Your task to perform on an android device: install app "Gmail" Image 0: 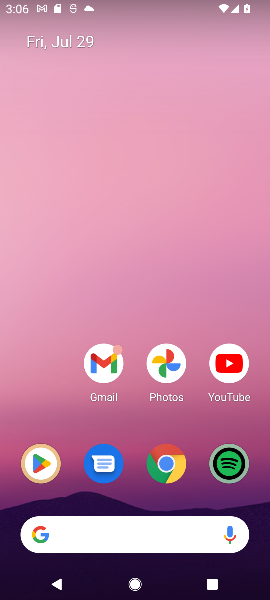
Step 0: drag from (106, 537) to (113, 143)
Your task to perform on an android device: install app "Gmail" Image 1: 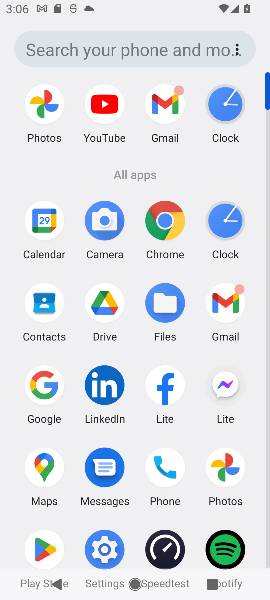
Step 1: drag from (70, 505) to (66, 325)
Your task to perform on an android device: install app "Gmail" Image 2: 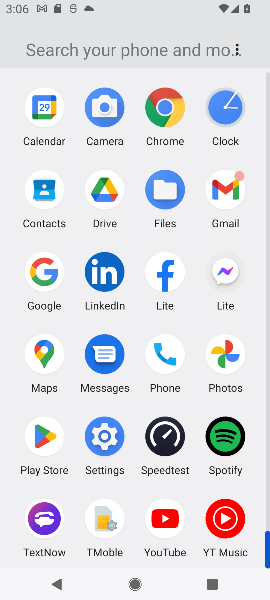
Step 2: click (45, 436)
Your task to perform on an android device: install app "Gmail" Image 3: 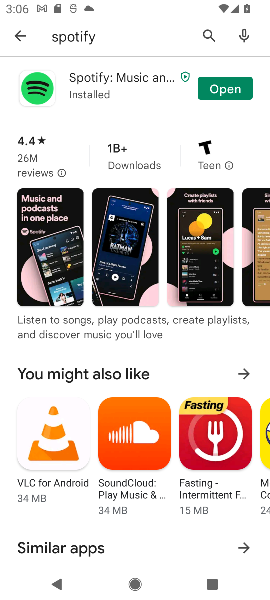
Step 3: click (210, 36)
Your task to perform on an android device: install app "Gmail" Image 4: 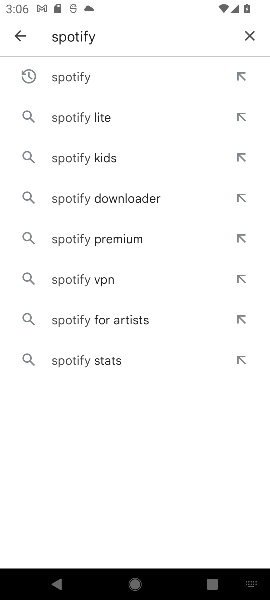
Step 4: click (251, 34)
Your task to perform on an android device: install app "Gmail" Image 5: 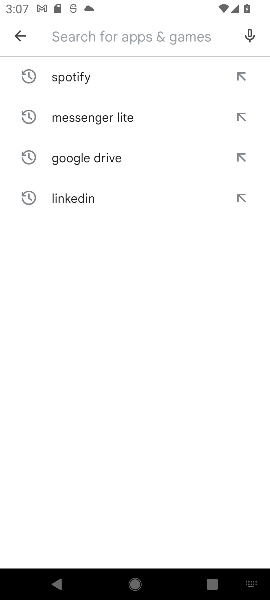
Step 5: type "Gmail"
Your task to perform on an android device: install app "Gmail" Image 6: 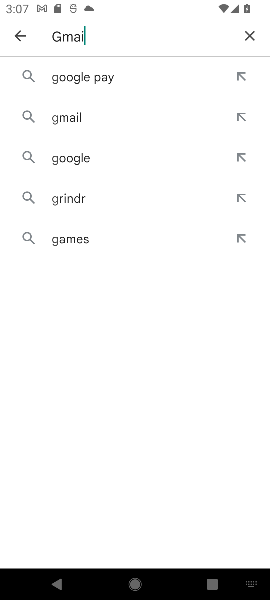
Step 6: type ""
Your task to perform on an android device: install app "Gmail" Image 7: 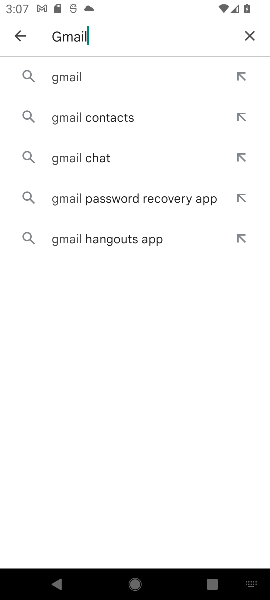
Step 7: click (81, 79)
Your task to perform on an android device: install app "Gmail" Image 8: 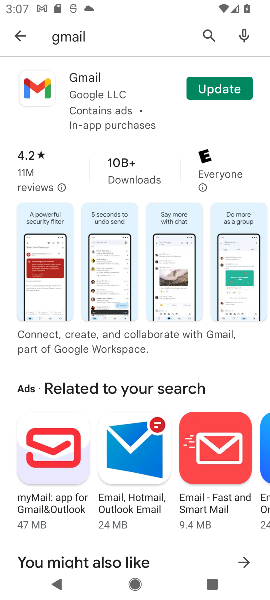
Step 8: click (217, 88)
Your task to perform on an android device: install app "Gmail" Image 9: 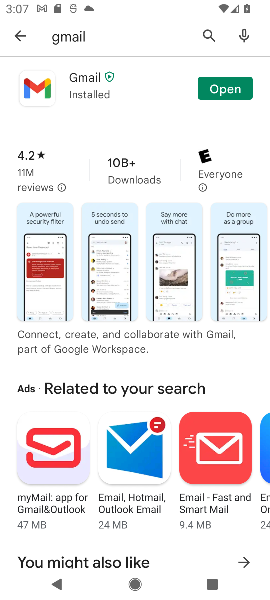
Step 9: task complete